Your task to perform on an android device: turn vacation reply on in the gmail app Image 0: 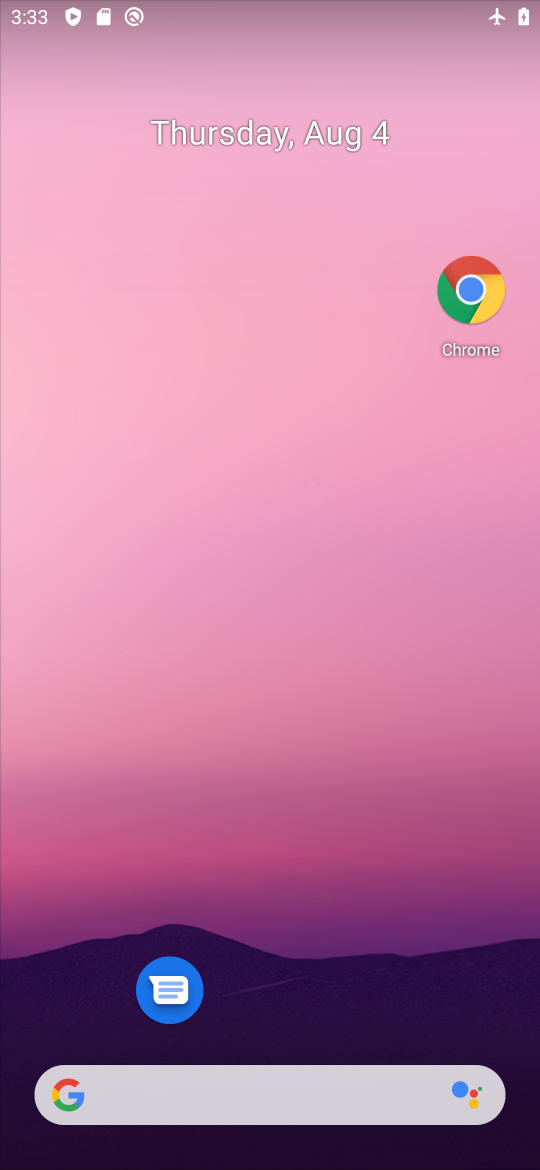
Step 0: drag from (330, 1051) to (323, 111)
Your task to perform on an android device: turn vacation reply on in the gmail app Image 1: 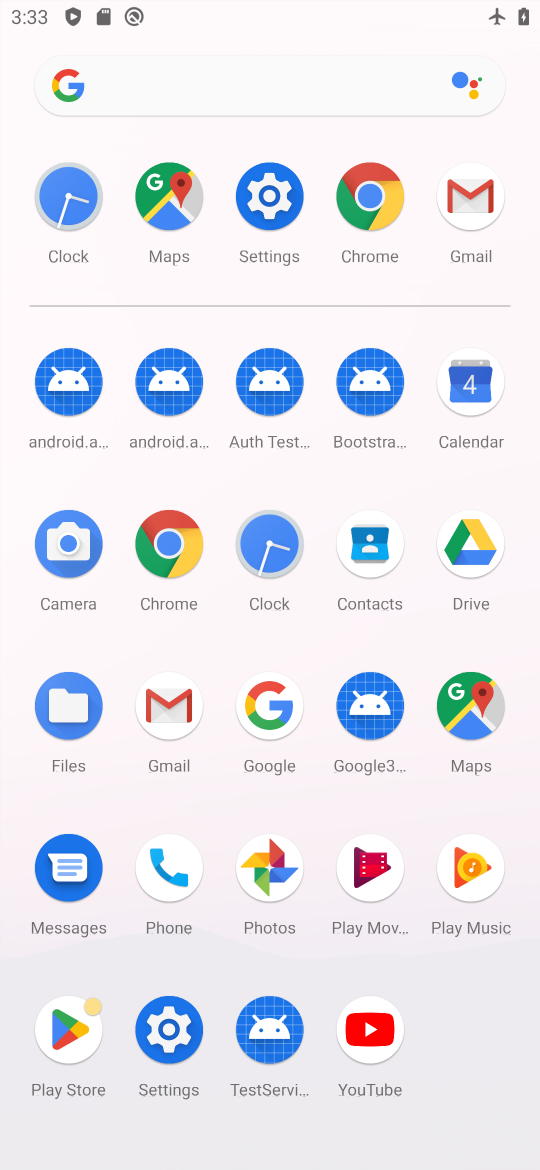
Step 1: click (178, 736)
Your task to perform on an android device: turn vacation reply on in the gmail app Image 2: 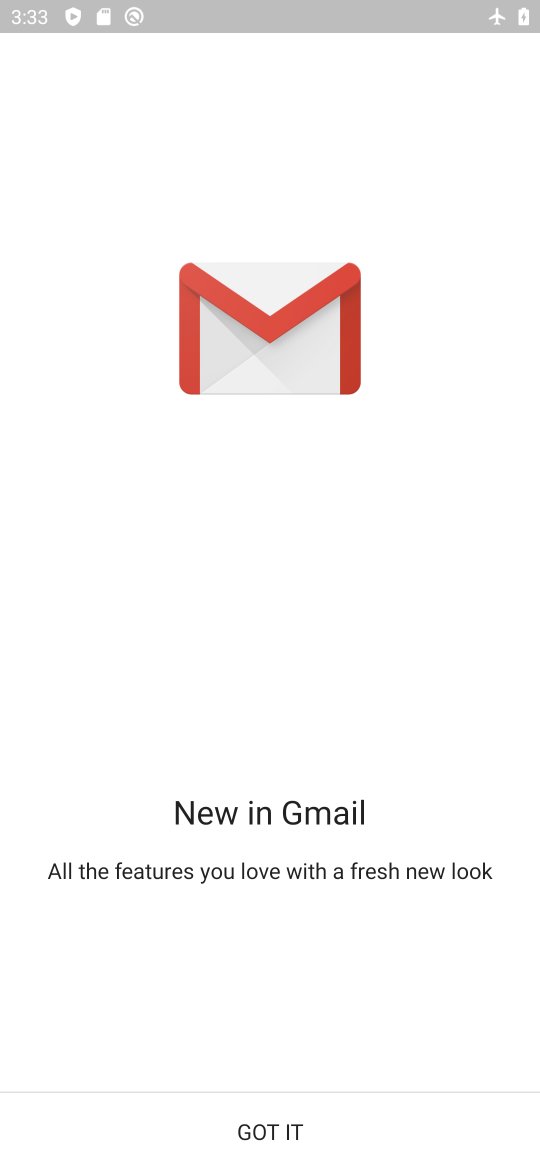
Step 2: click (269, 1117)
Your task to perform on an android device: turn vacation reply on in the gmail app Image 3: 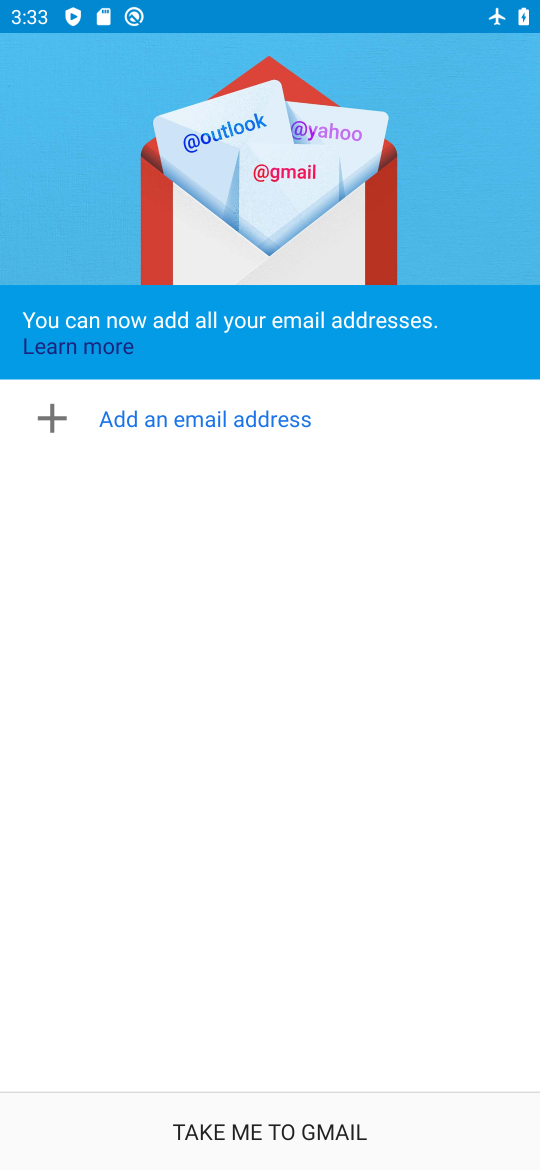
Step 3: click (269, 1117)
Your task to perform on an android device: turn vacation reply on in the gmail app Image 4: 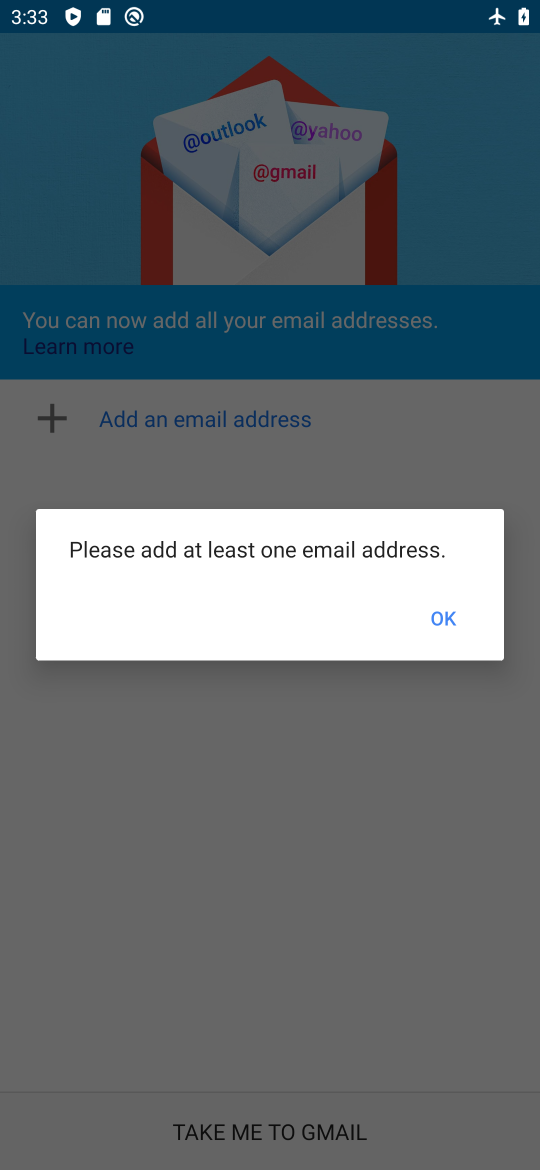
Step 4: click (456, 624)
Your task to perform on an android device: turn vacation reply on in the gmail app Image 5: 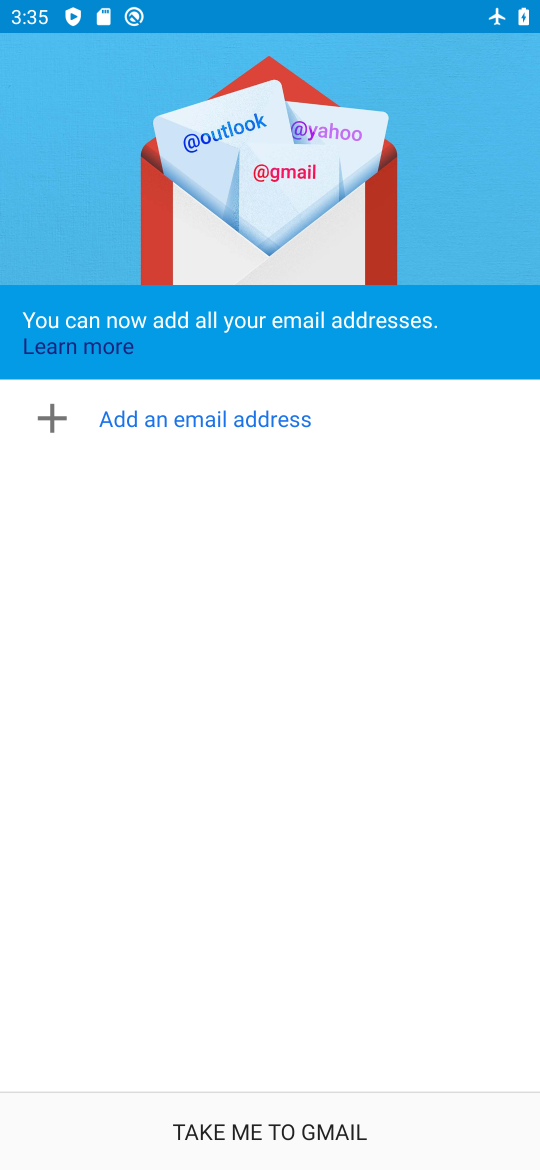
Step 5: task complete